Your task to perform on an android device: Go to Reddit.com Image 0: 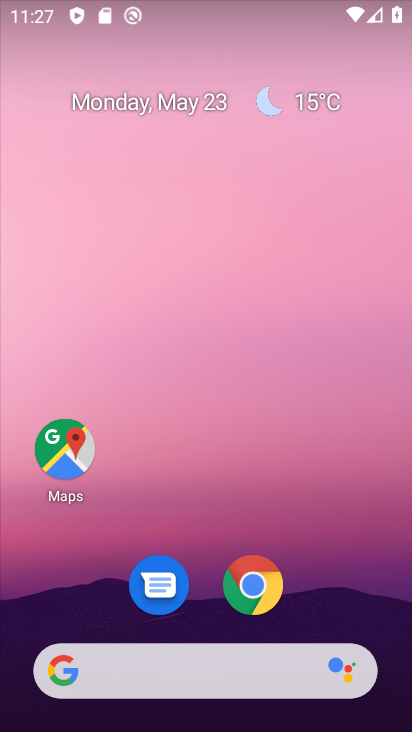
Step 0: click (269, 681)
Your task to perform on an android device: Go to Reddit.com Image 1: 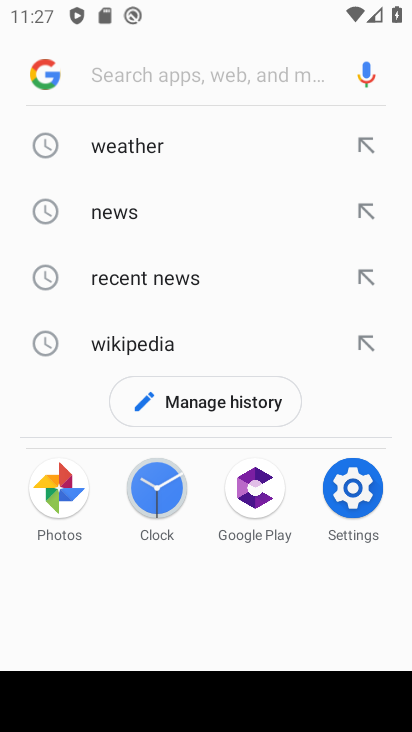
Step 1: type "reddit.com"
Your task to perform on an android device: Go to Reddit.com Image 2: 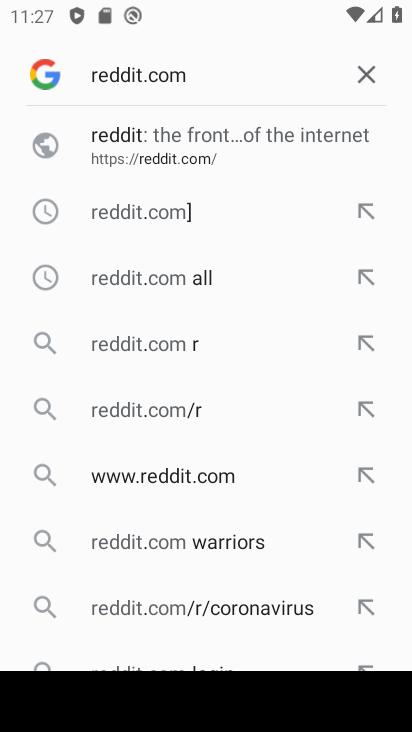
Step 2: click (108, 148)
Your task to perform on an android device: Go to Reddit.com Image 3: 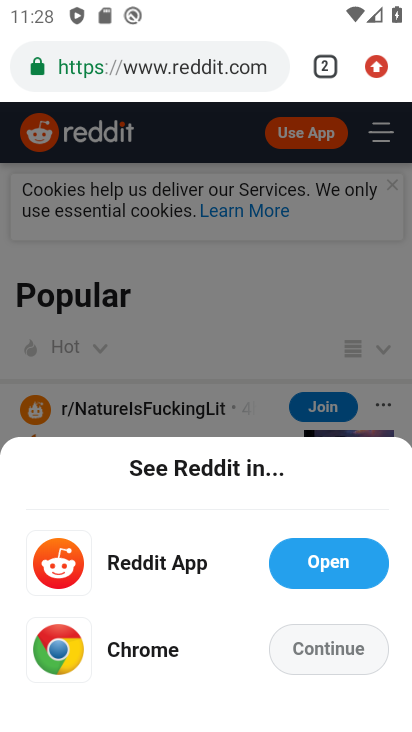
Step 3: task complete